Your task to perform on an android device: Set the phone to "Do not disturb". Image 0: 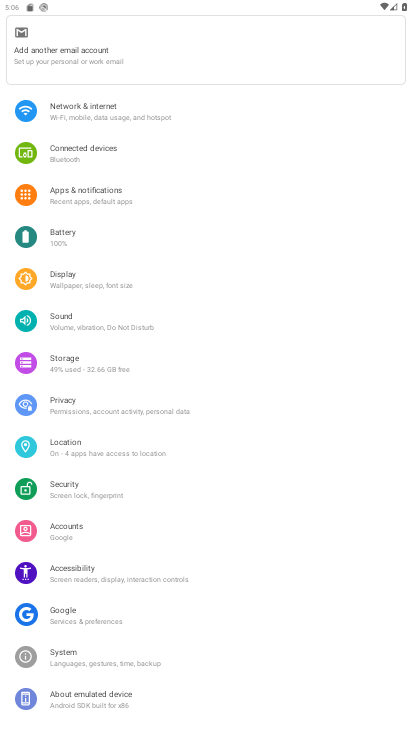
Step 0: click (98, 319)
Your task to perform on an android device: Set the phone to "Do not disturb". Image 1: 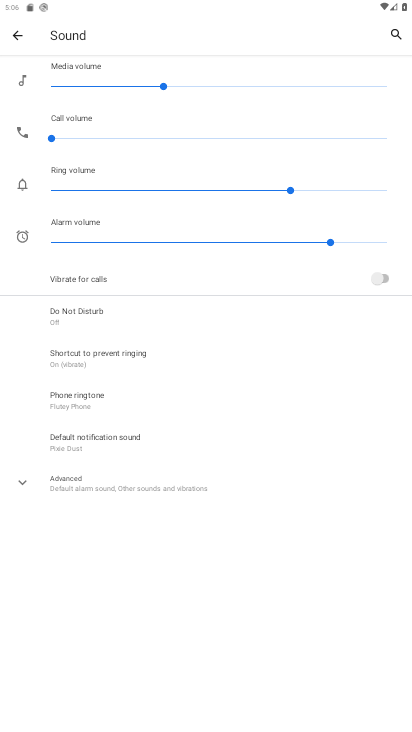
Step 1: click (135, 314)
Your task to perform on an android device: Set the phone to "Do not disturb". Image 2: 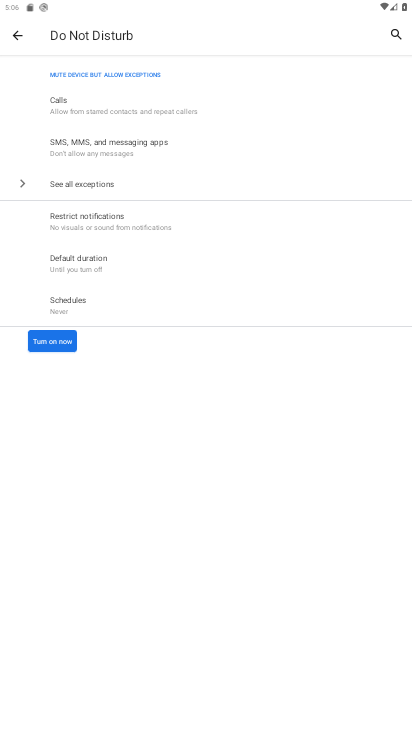
Step 2: click (66, 338)
Your task to perform on an android device: Set the phone to "Do not disturb". Image 3: 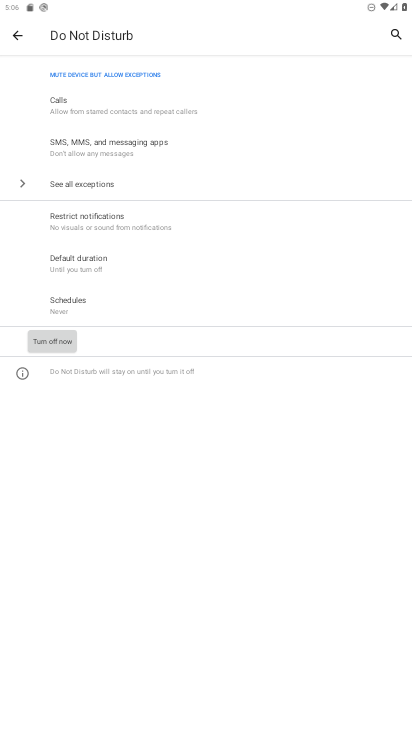
Step 3: task complete